Your task to perform on an android device: open app "Chime – Mobile Banking" Image 0: 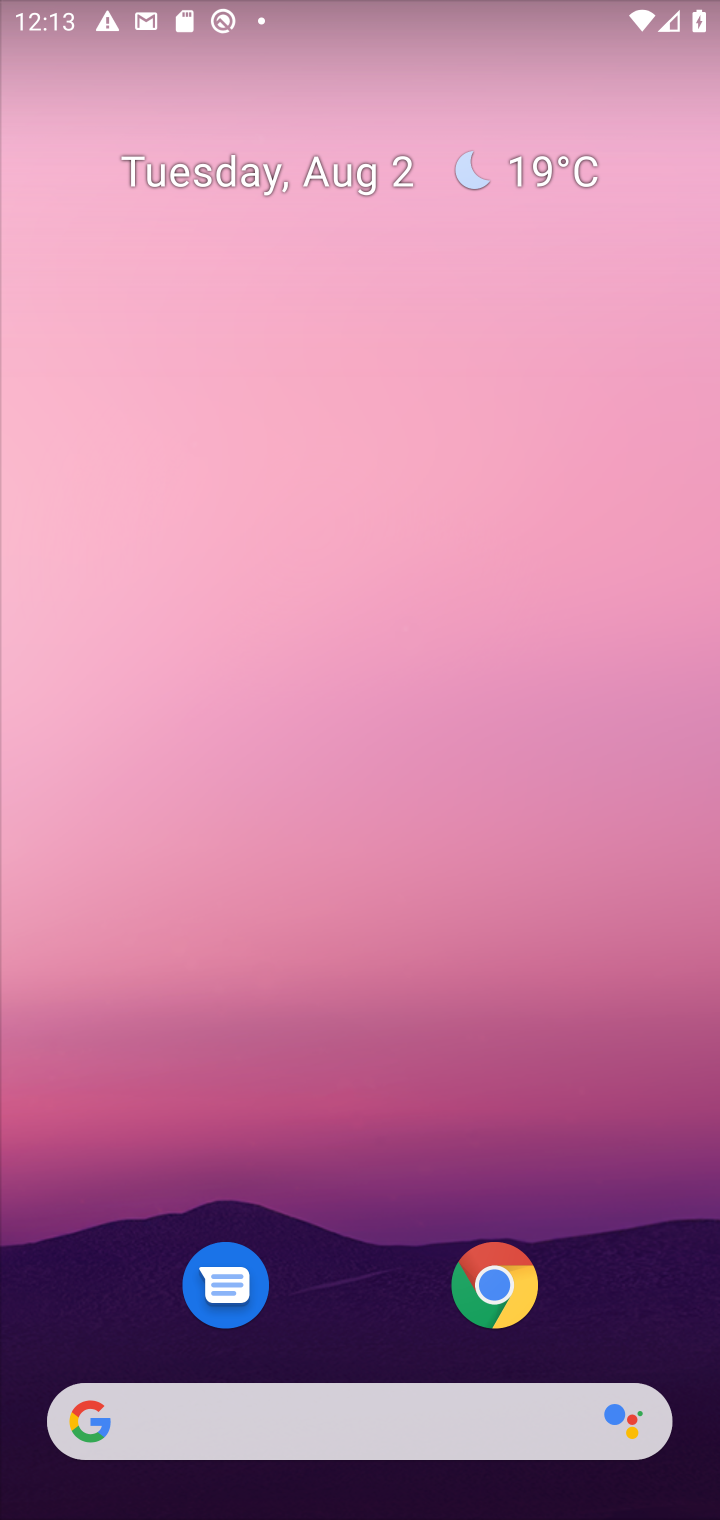
Step 0: press home button
Your task to perform on an android device: open app "Chime – Mobile Banking" Image 1: 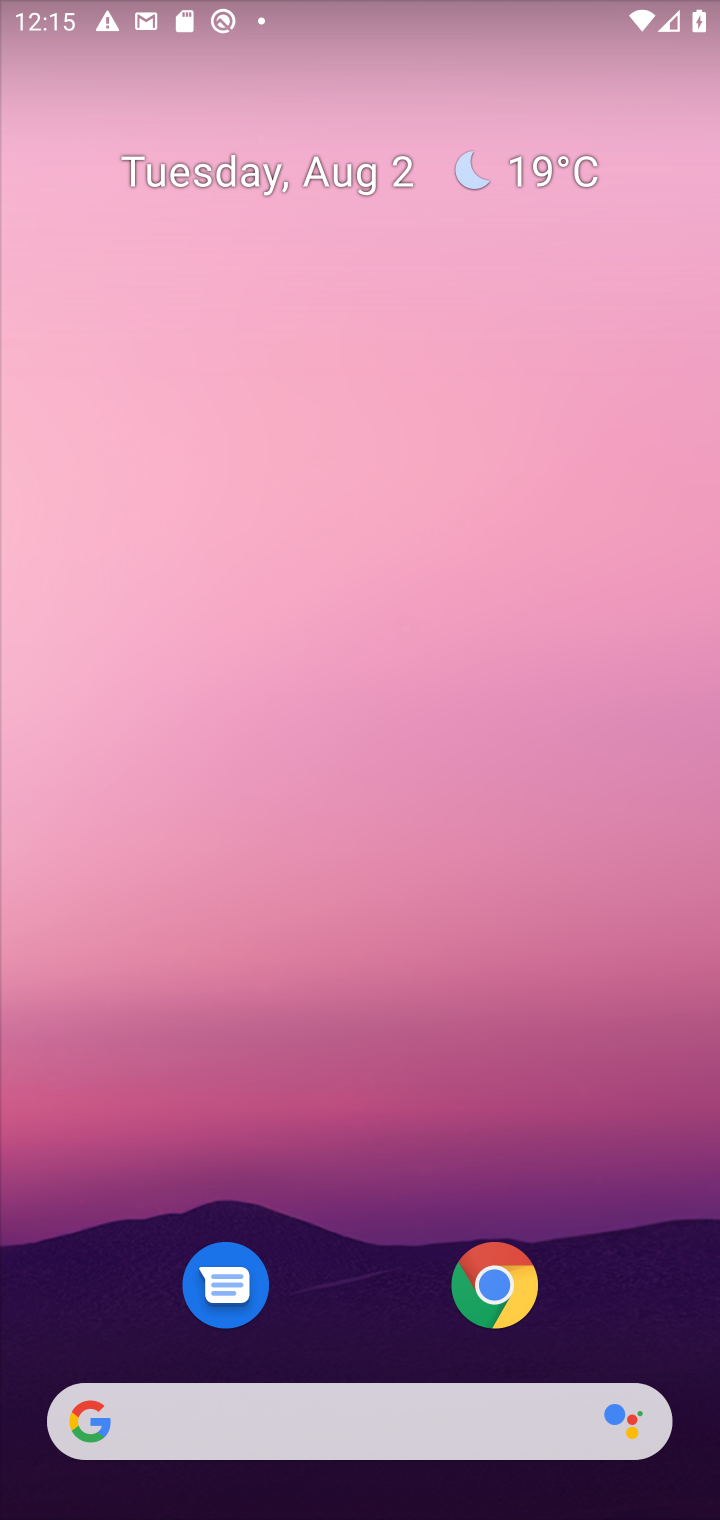
Step 1: drag from (405, 1349) to (371, 746)
Your task to perform on an android device: open app "Chime – Mobile Banking" Image 2: 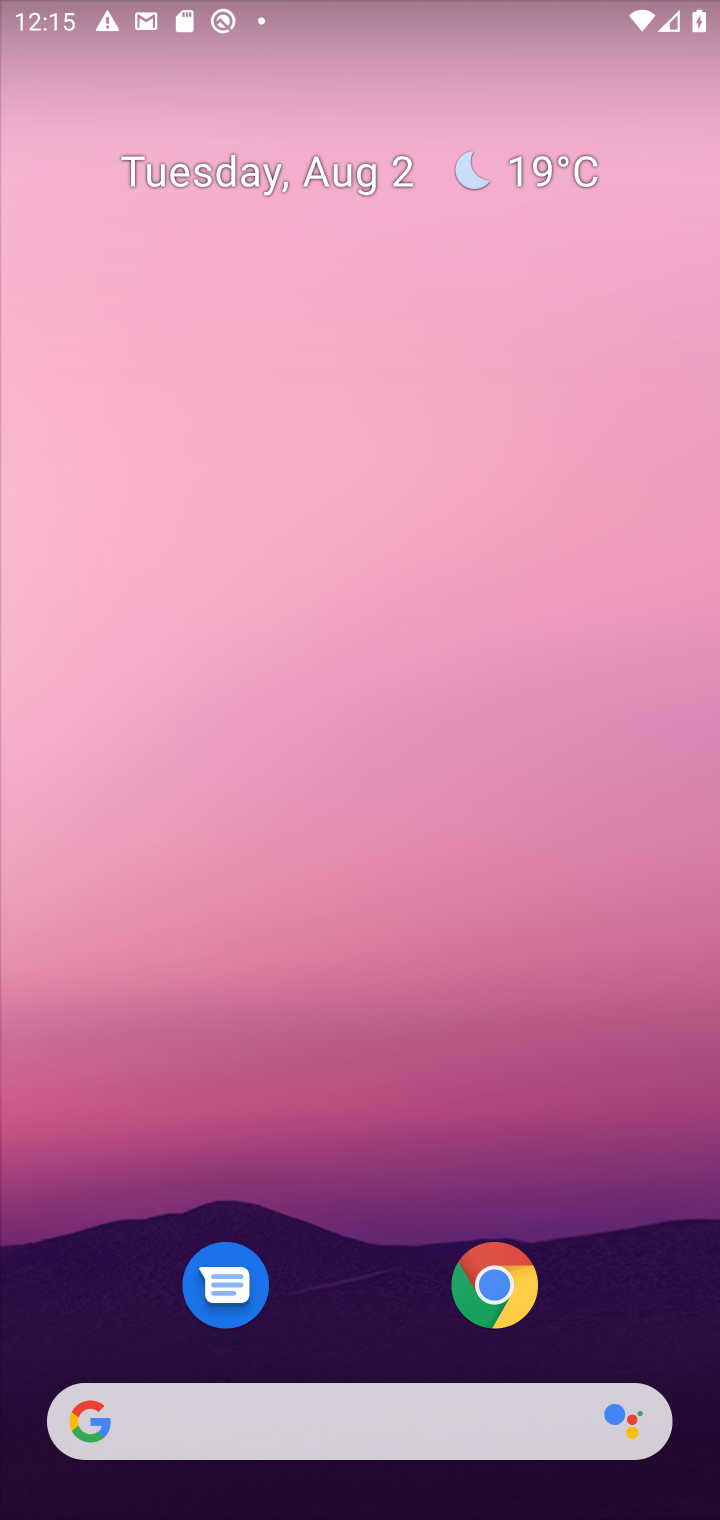
Step 2: drag from (325, 1308) to (283, 8)
Your task to perform on an android device: open app "Chime – Mobile Banking" Image 3: 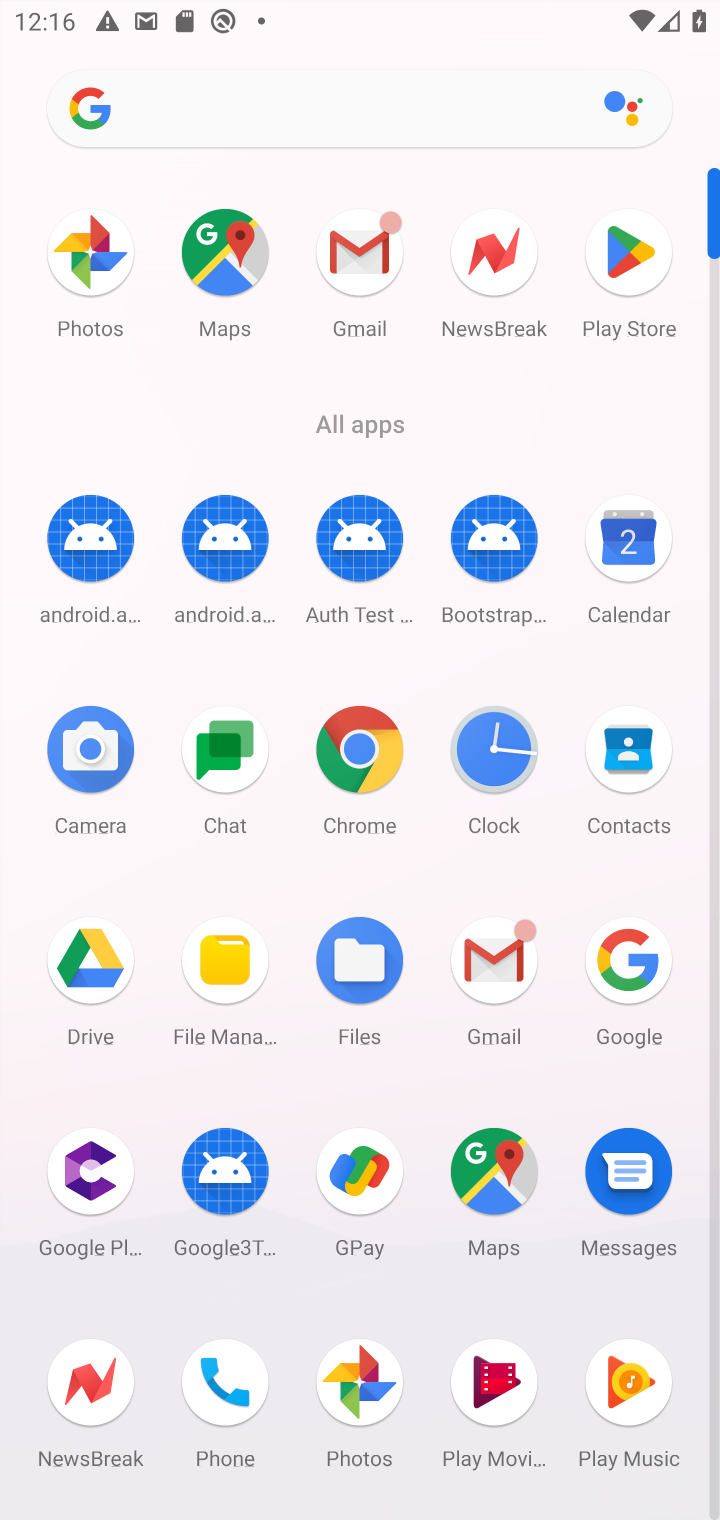
Step 3: click (621, 250)
Your task to perform on an android device: open app "Chime – Mobile Banking" Image 4: 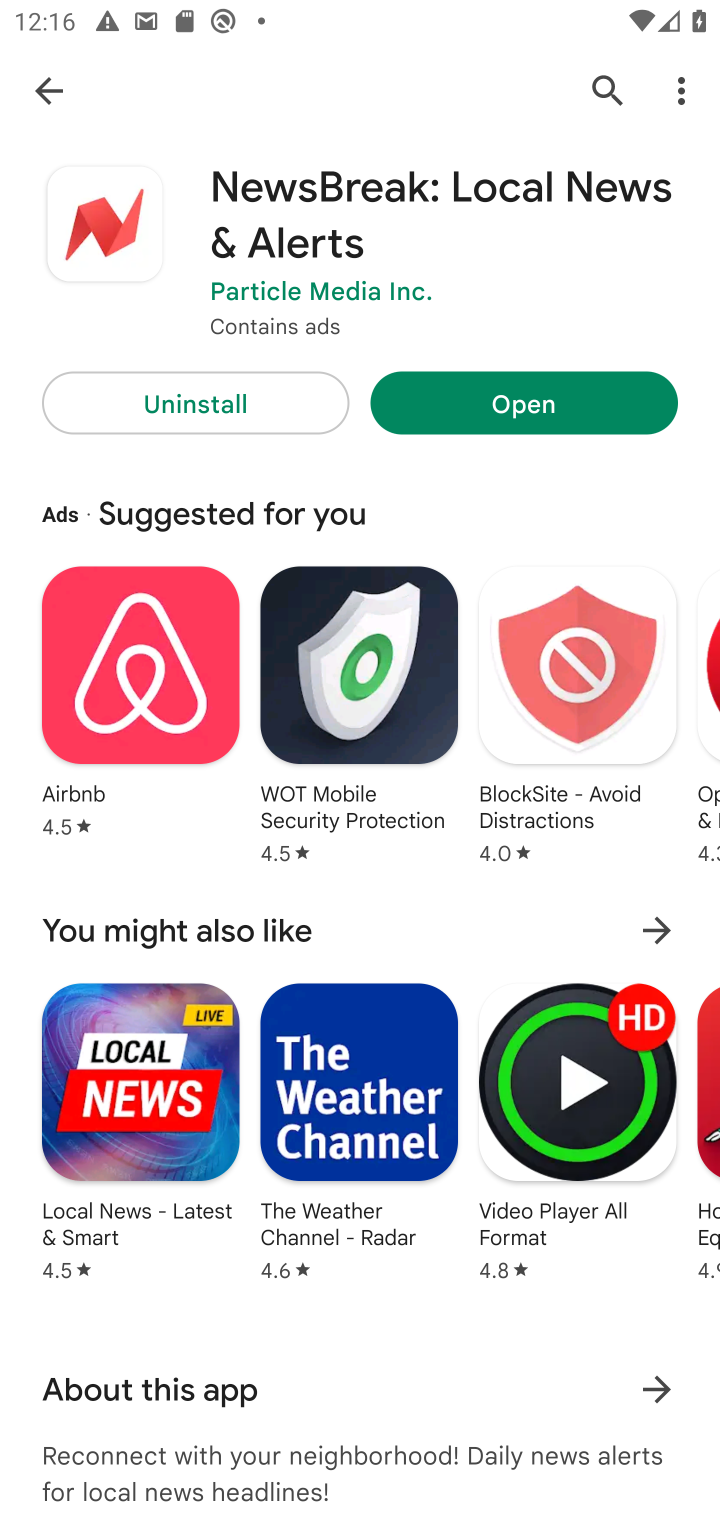
Step 4: click (607, 92)
Your task to perform on an android device: open app "Chime – Mobile Banking" Image 5: 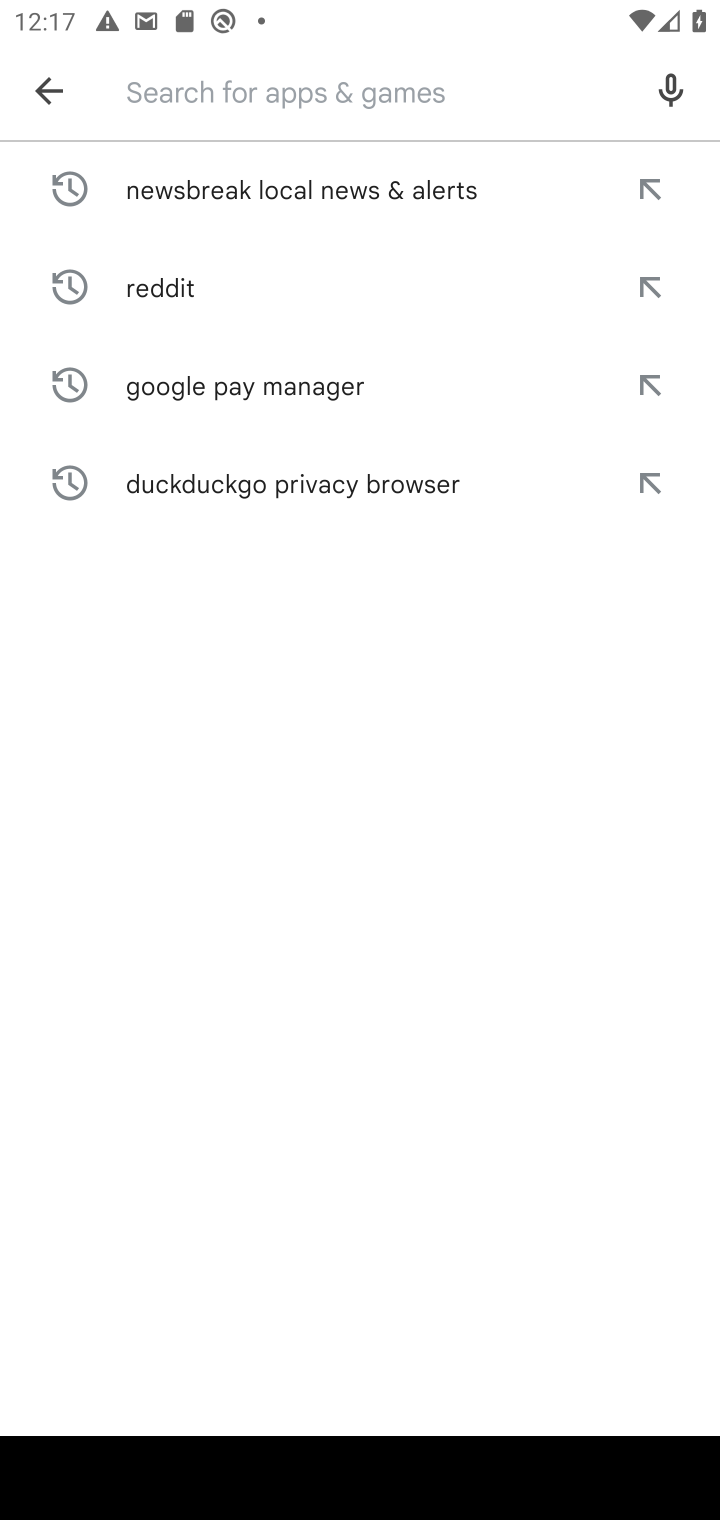
Step 5: type "Chime - Mobile Banking"
Your task to perform on an android device: open app "Chime – Mobile Banking" Image 6: 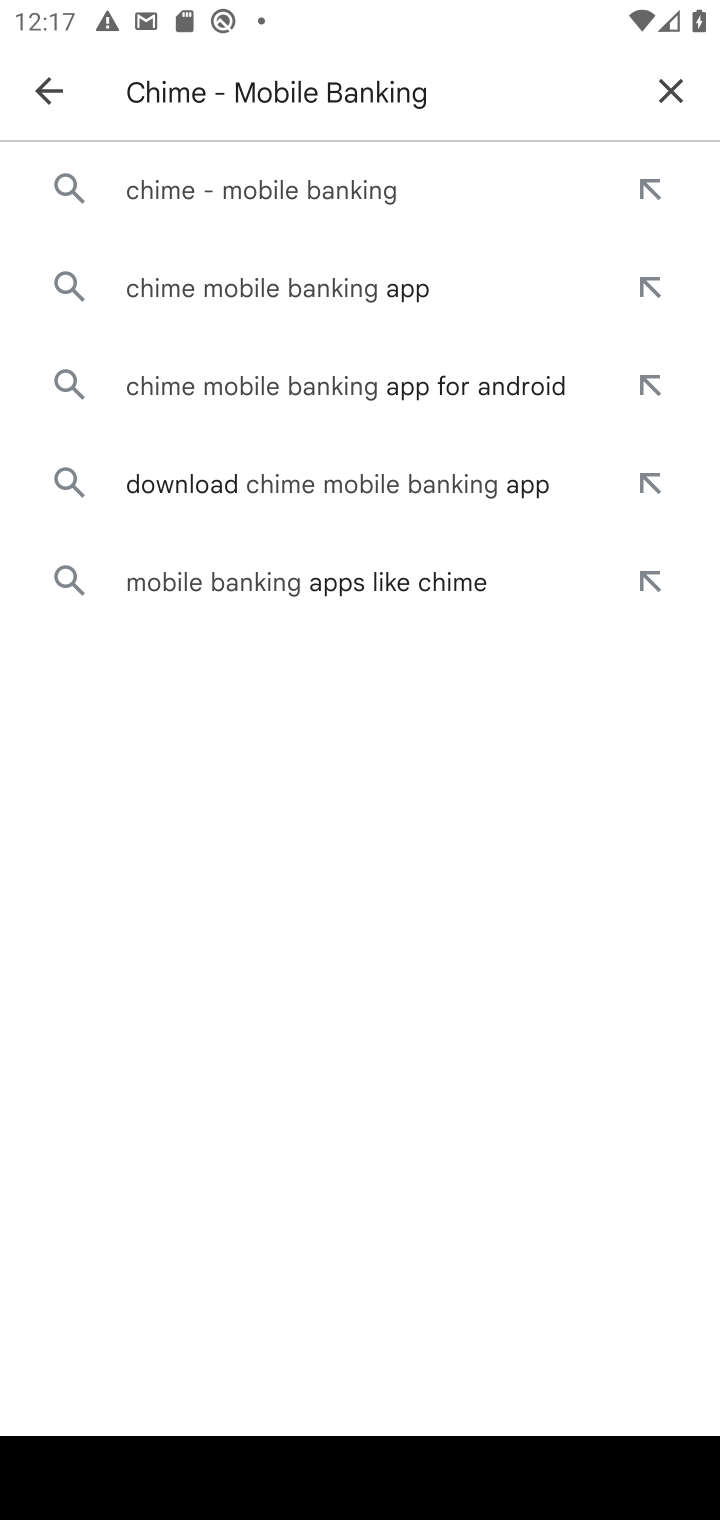
Step 6: click (246, 200)
Your task to perform on an android device: open app "Chime – Mobile Banking" Image 7: 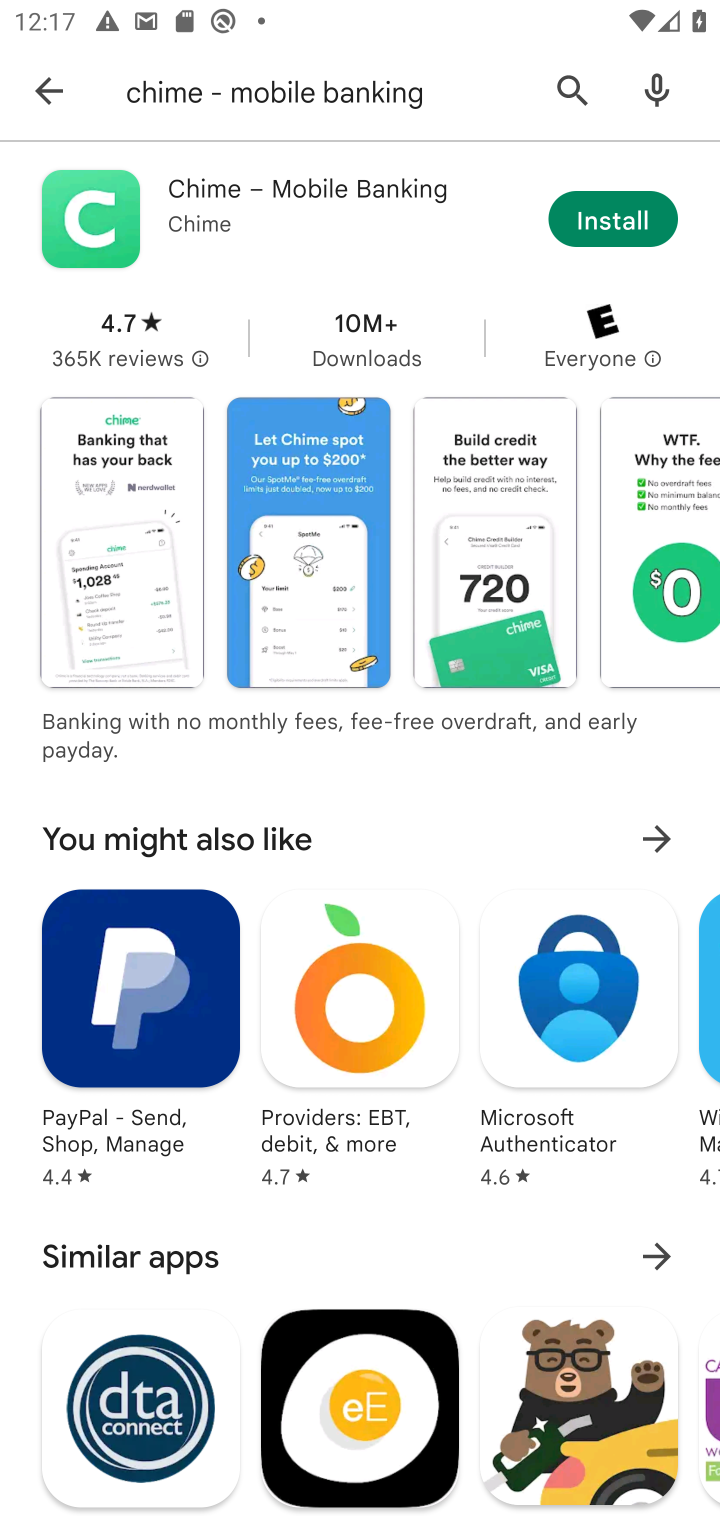
Step 7: click (628, 241)
Your task to perform on an android device: open app "Chime – Mobile Banking" Image 8: 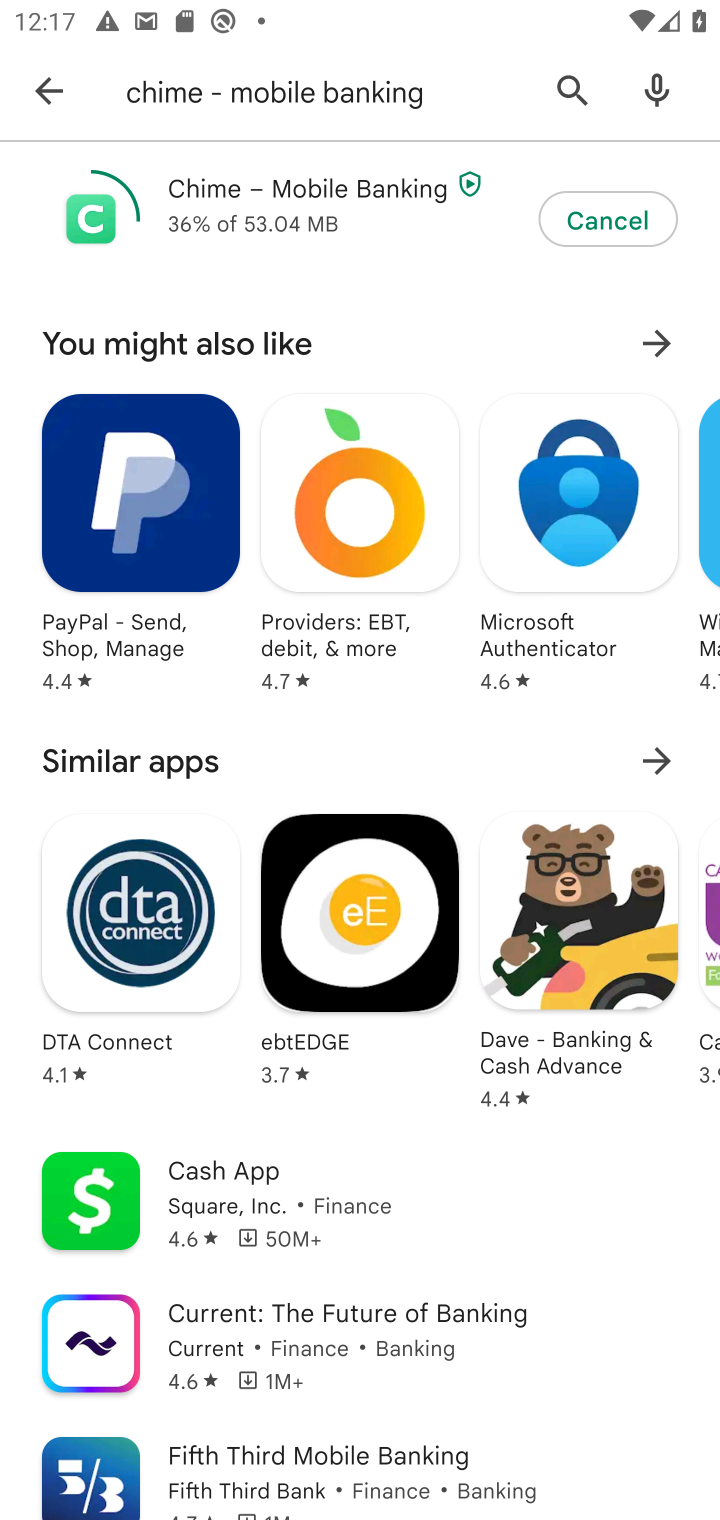
Step 8: click (654, 205)
Your task to perform on an android device: open app "Chime – Mobile Banking" Image 9: 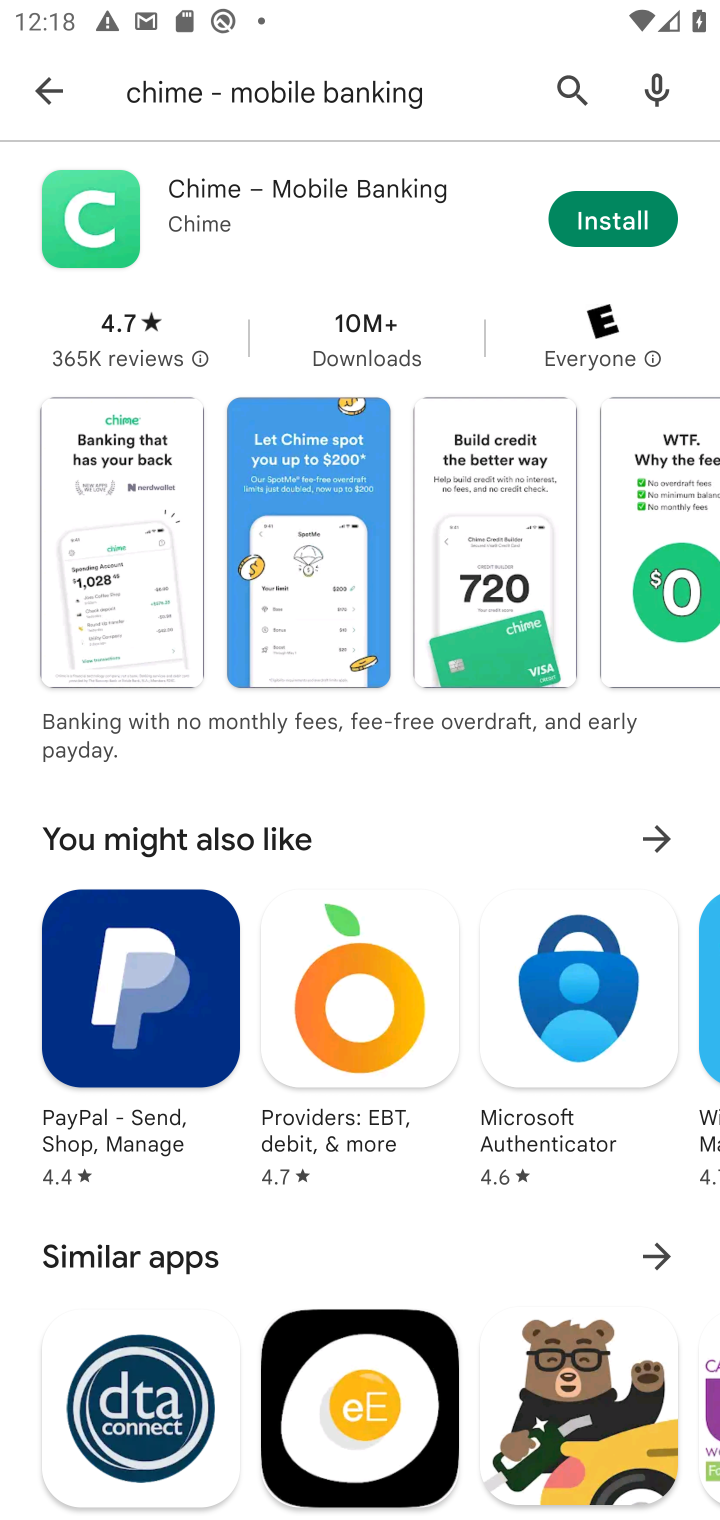
Step 9: task complete